Your task to perform on an android device: change notification settings in the gmail app Image 0: 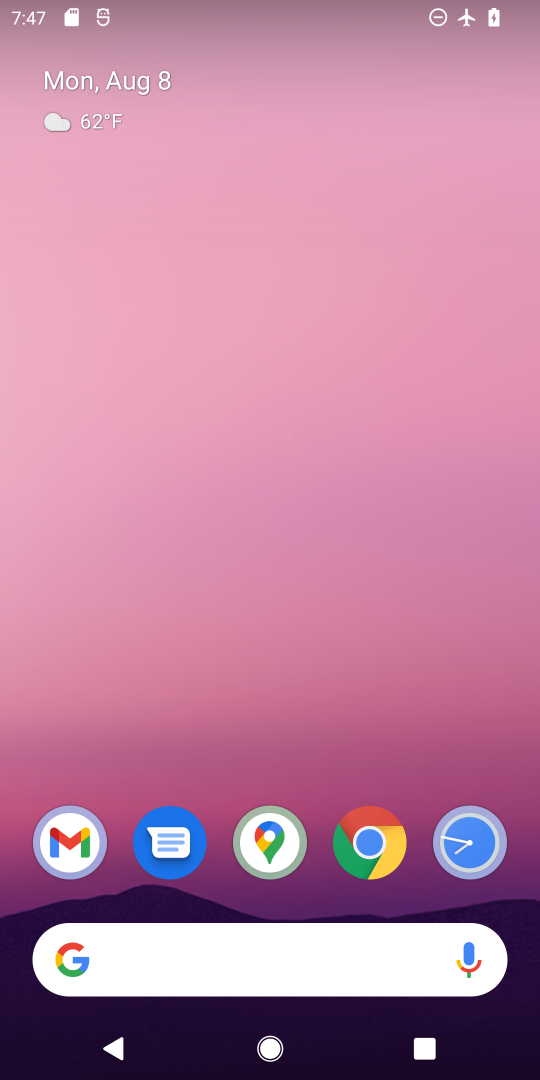
Step 0: drag from (261, 898) to (276, 15)
Your task to perform on an android device: change notification settings in the gmail app Image 1: 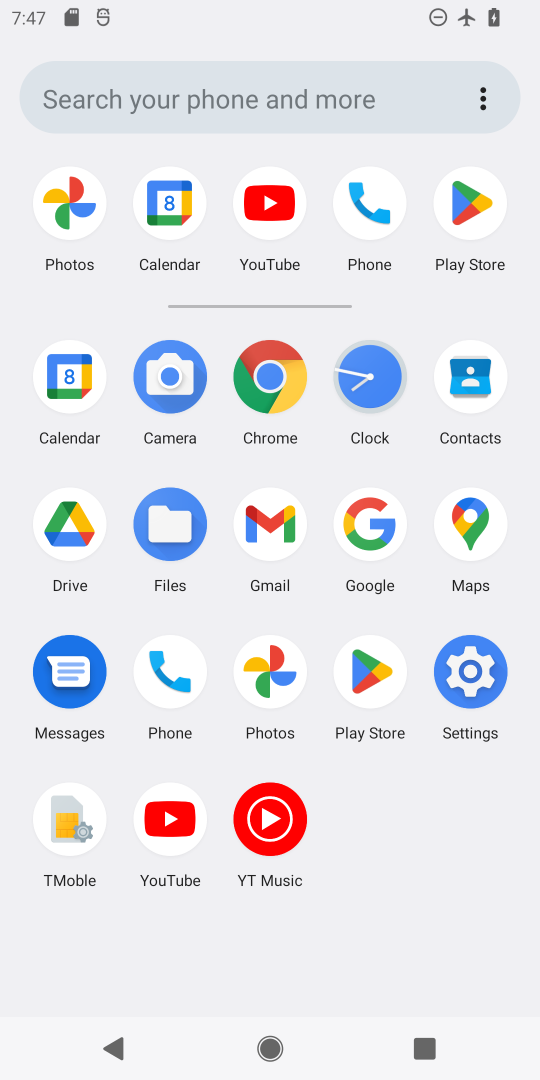
Step 1: click (274, 520)
Your task to perform on an android device: change notification settings in the gmail app Image 2: 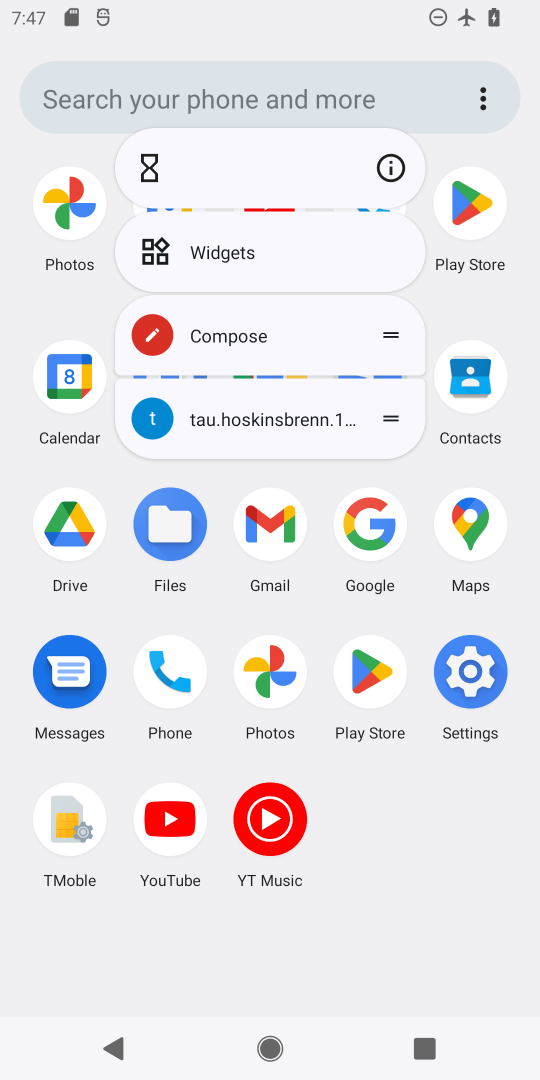
Step 2: click (246, 554)
Your task to perform on an android device: change notification settings in the gmail app Image 3: 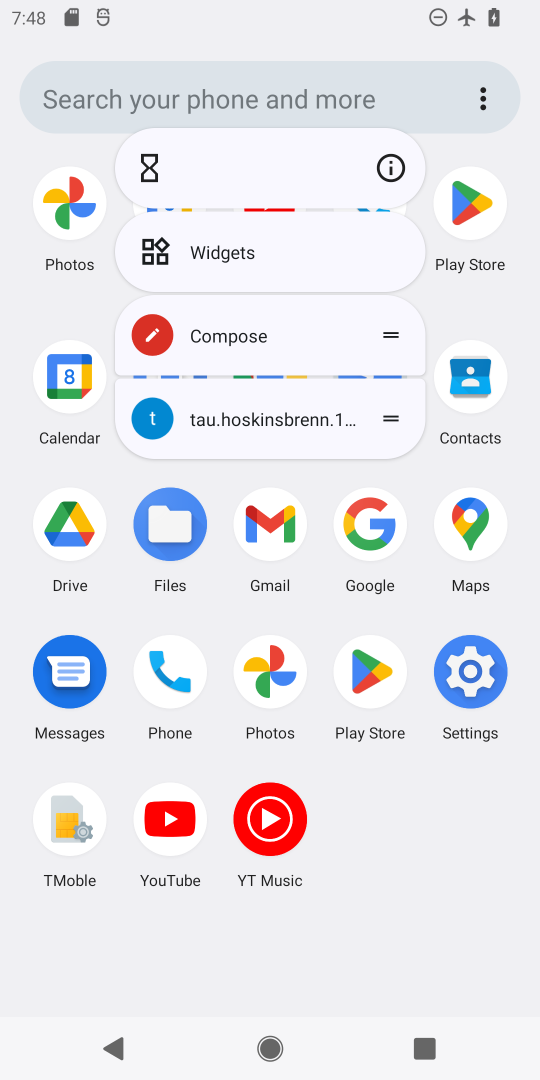
Step 3: click (273, 529)
Your task to perform on an android device: change notification settings in the gmail app Image 4: 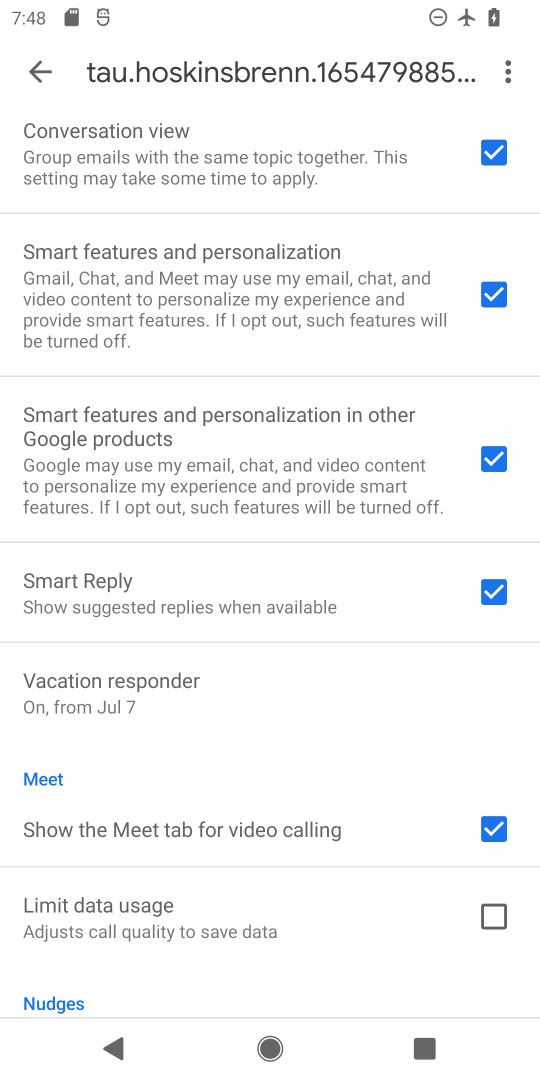
Step 4: click (26, 63)
Your task to perform on an android device: change notification settings in the gmail app Image 5: 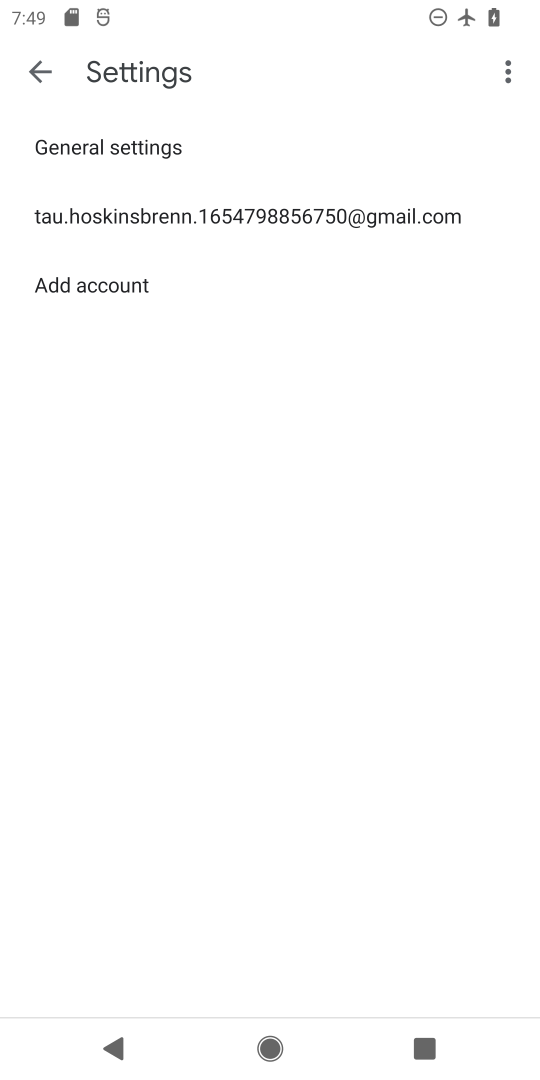
Step 5: click (81, 158)
Your task to perform on an android device: change notification settings in the gmail app Image 6: 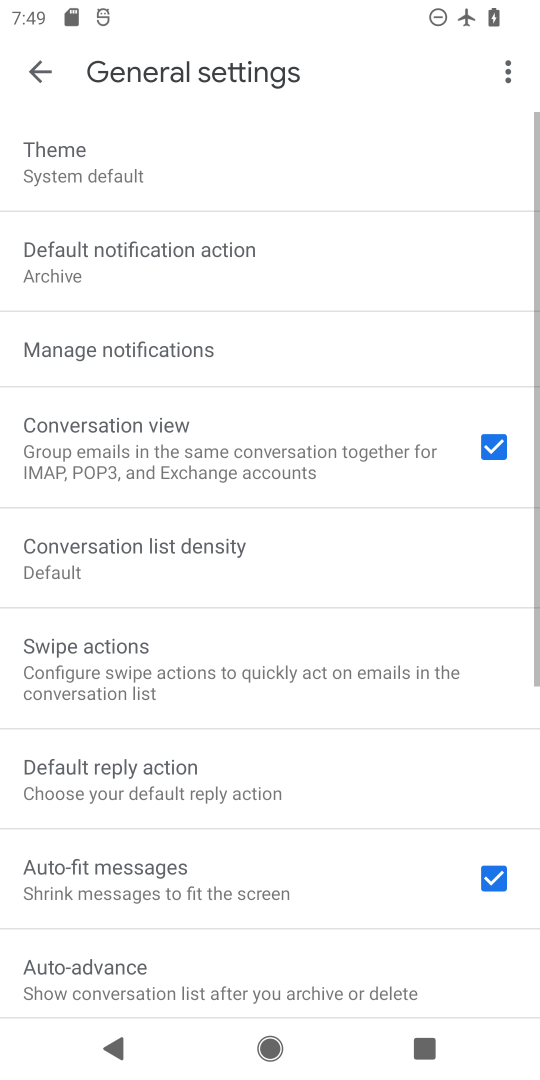
Step 6: click (158, 320)
Your task to perform on an android device: change notification settings in the gmail app Image 7: 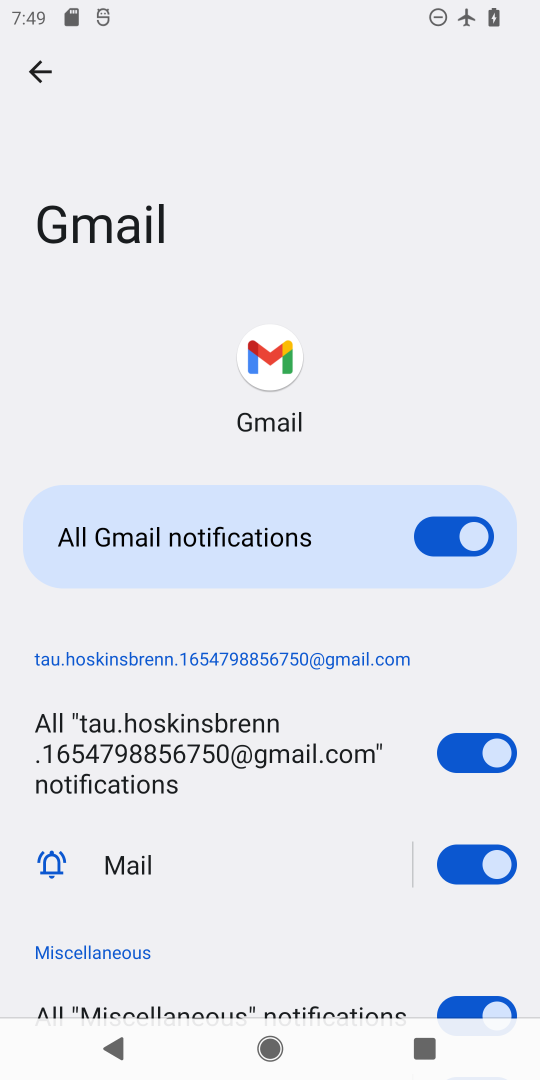
Step 7: click (456, 535)
Your task to perform on an android device: change notification settings in the gmail app Image 8: 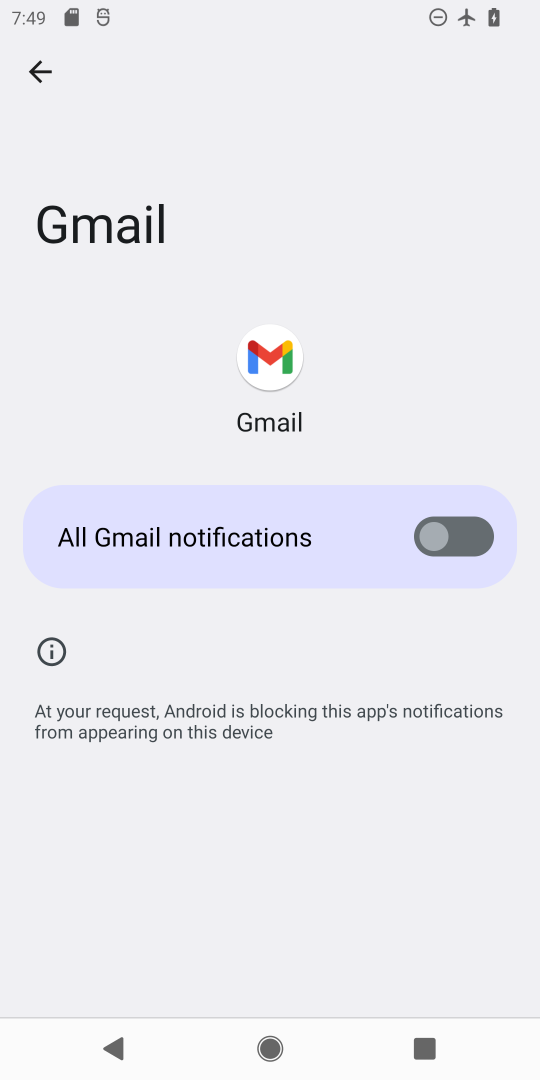
Step 8: task complete